Your task to perform on an android device: change alarm snooze length Image 0: 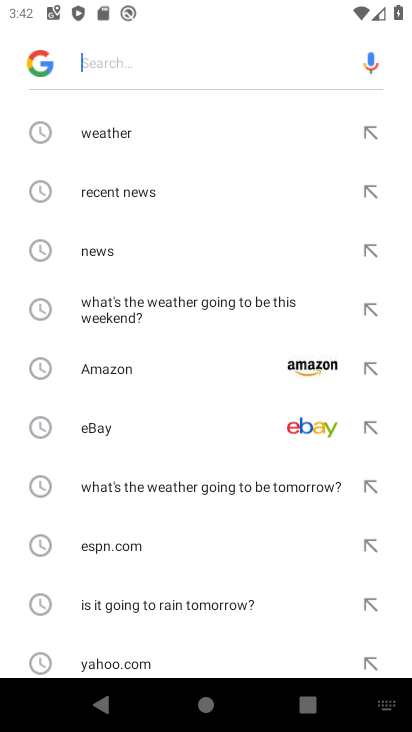
Step 0: press home button
Your task to perform on an android device: change alarm snooze length Image 1: 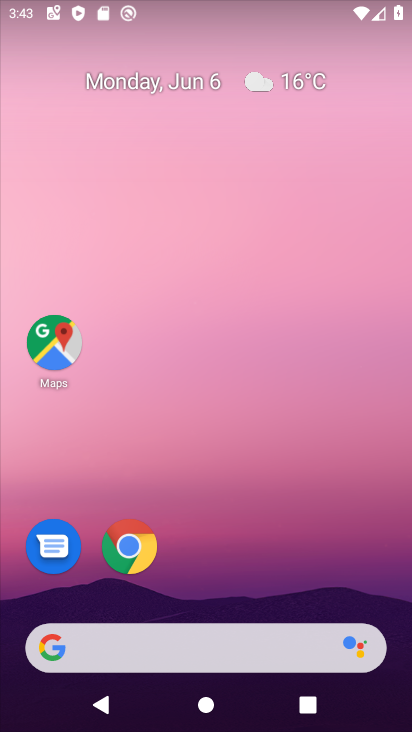
Step 1: drag from (305, 512) to (353, 23)
Your task to perform on an android device: change alarm snooze length Image 2: 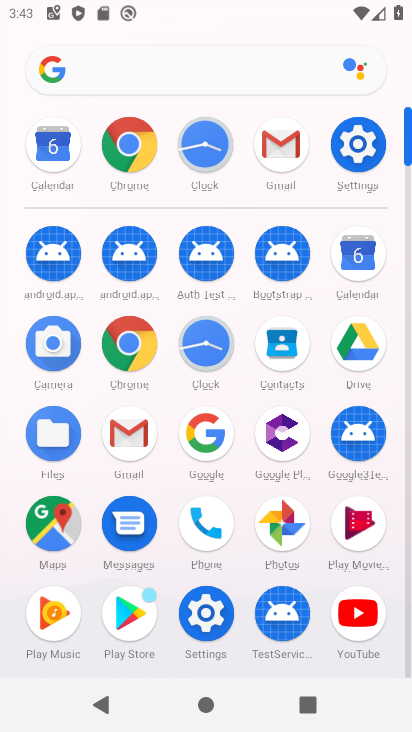
Step 2: click (213, 131)
Your task to perform on an android device: change alarm snooze length Image 3: 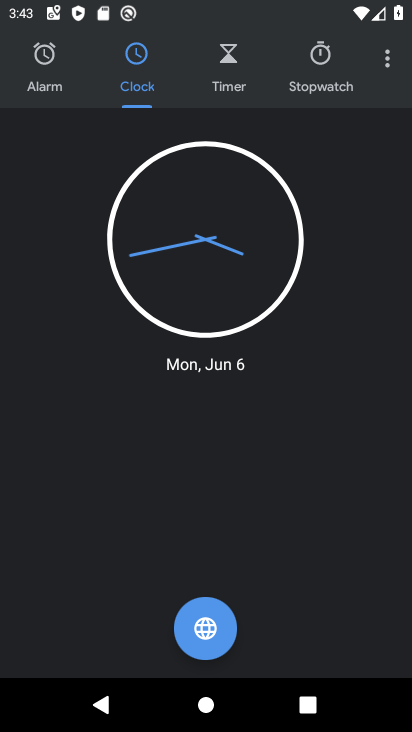
Step 3: click (391, 62)
Your task to perform on an android device: change alarm snooze length Image 4: 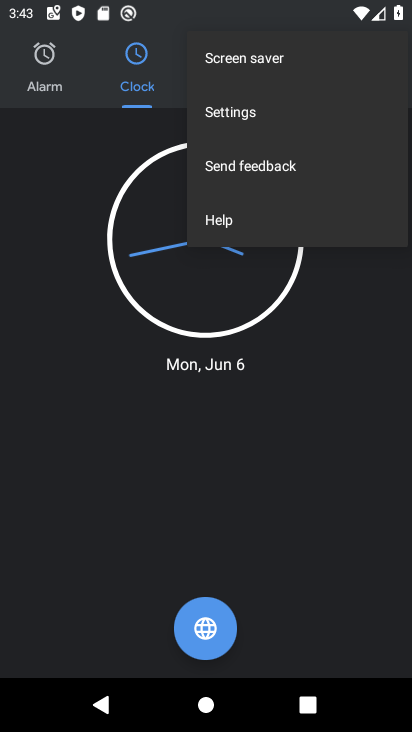
Step 4: click (248, 111)
Your task to perform on an android device: change alarm snooze length Image 5: 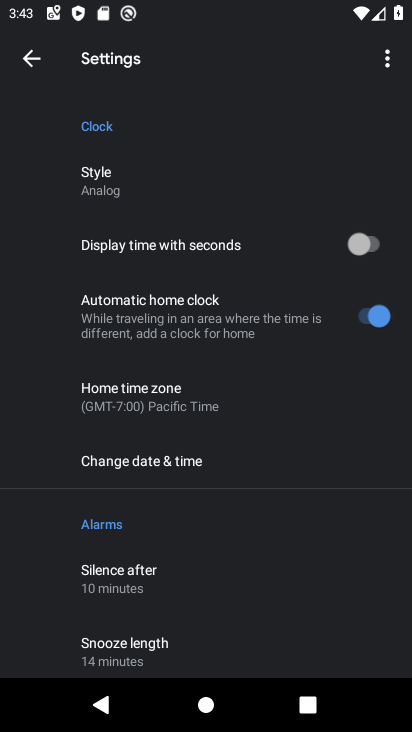
Step 5: drag from (200, 602) to (274, 101)
Your task to perform on an android device: change alarm snooze length Image 6: 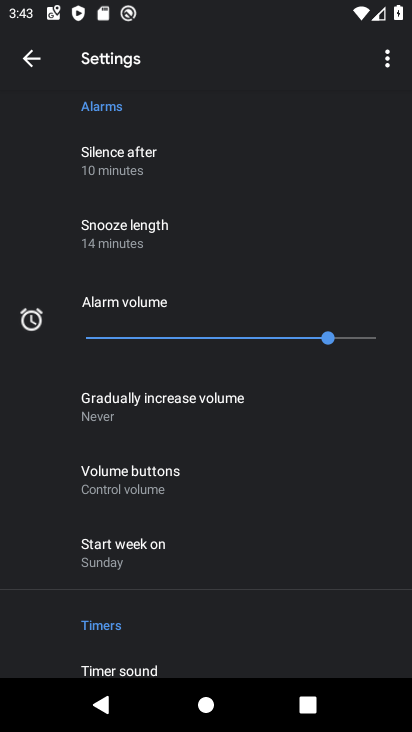
Step 6: click (149, 257)
Your task to perform on an android device: change alarm snooze length Image 7: 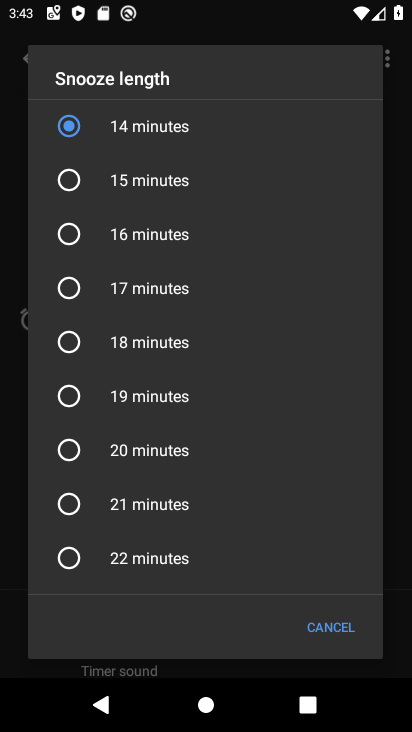
Step 7: click (81, 356)
Your task to perform on an android device: change alarm snooze length Image 8: 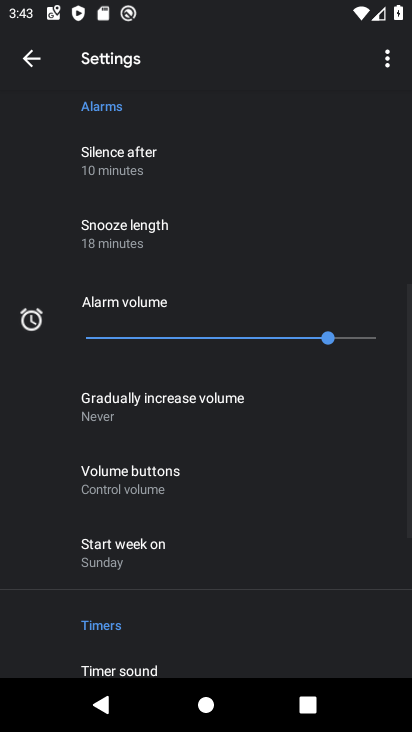
Step 8: task complete